Your task to perform on an android device: make emails show in primary in the gmail app Image 0: 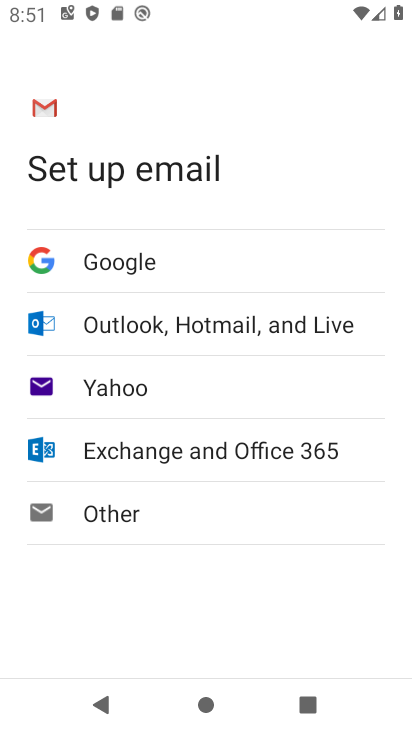
Step 0: press home button
Your task to perform on an android device: make emails show in primary in the gmail app Image 1: 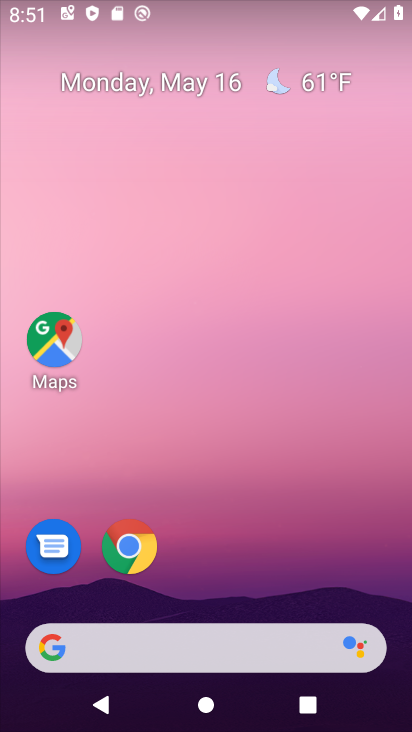
Step 1: drag from (328, 519) to (227, 184)
Your task to perform on an android device: make emails show in primary in the gmail app Image 2: 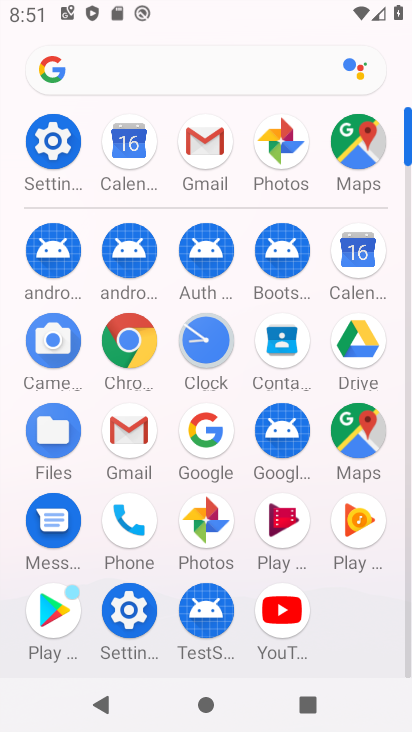
Step 2: click (130, 439)
Your task to perform on an android device: make emails show in primary in the gmail app Image 3: 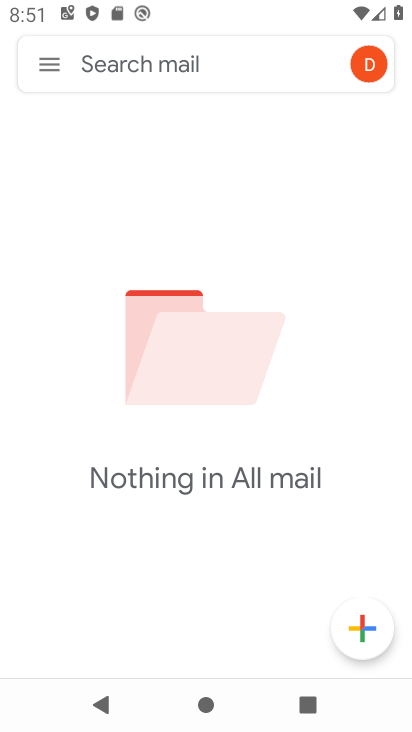
Step 3: click (52, 60)
Your task to perform on an android device: make emails show in primary in the gmail app Image 4: 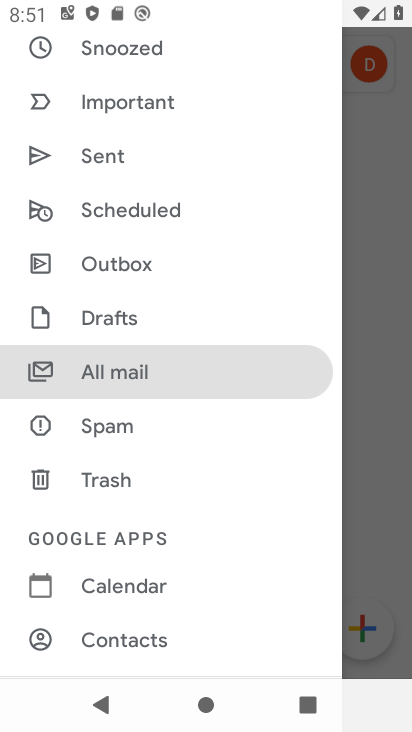
Step 4: drag from (273, 587) to (206, 197)
Your task to perform on an android device: make emails show in primary in the gmail app Image 5: 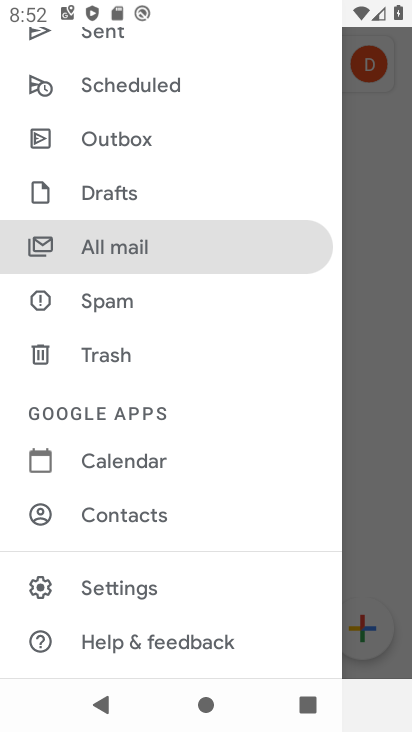
Step 5: click (161, 592)
Your task to perform on an android device: make emails show in primary in the gmail app Image 6: 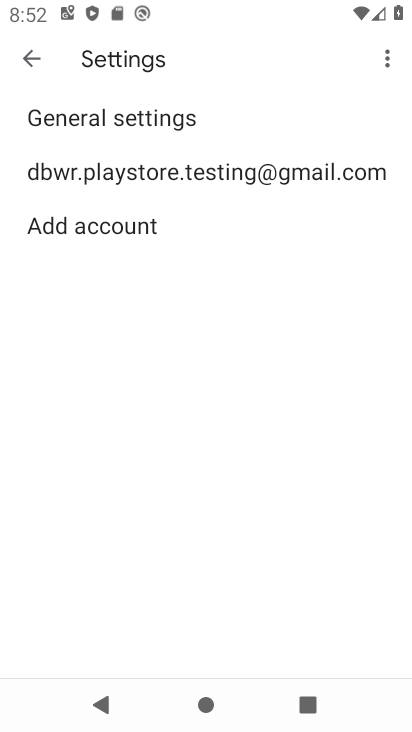
Step 6: click (99, 173)
Your task to perform on an android device: make emails show in primary in the gmail app Image 7: 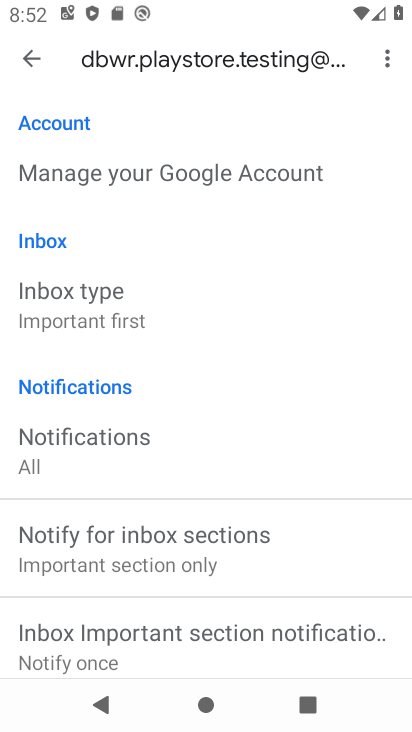
Step 7: click (91, 292)
Your task to perform on an android device: make emails show in primary in the gmail app Image 8: 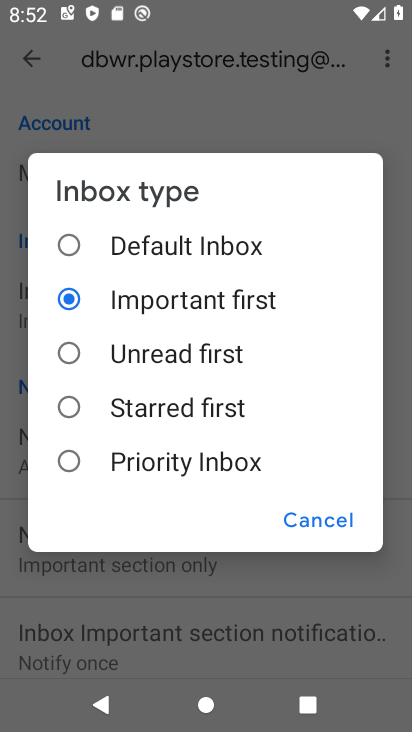
Step 8: click (70, 241)
Your task to perform on an android device: make emails show in primary in the gmail app Image 9: 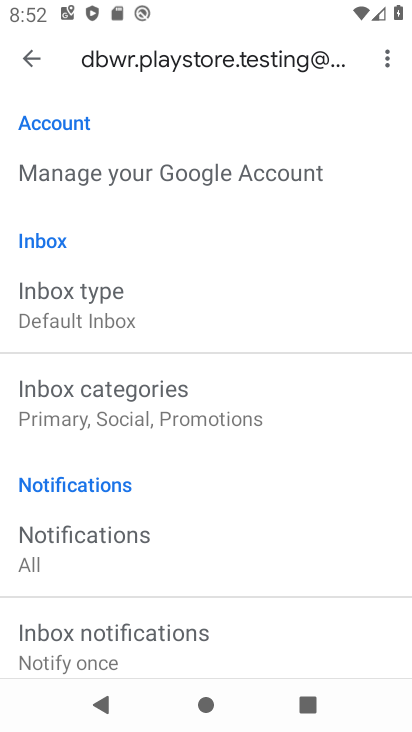
Step 9: click (143, 397)
Your task to perform on an android device: make emails show in primary in the gmail app Image 10: 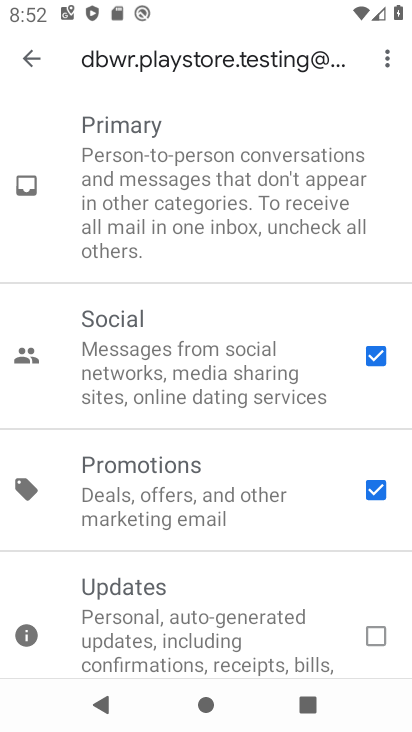
Step 10: click (381, 489)
Your task to perform on an android device: make emails show in primary in the gmail app Image 11: 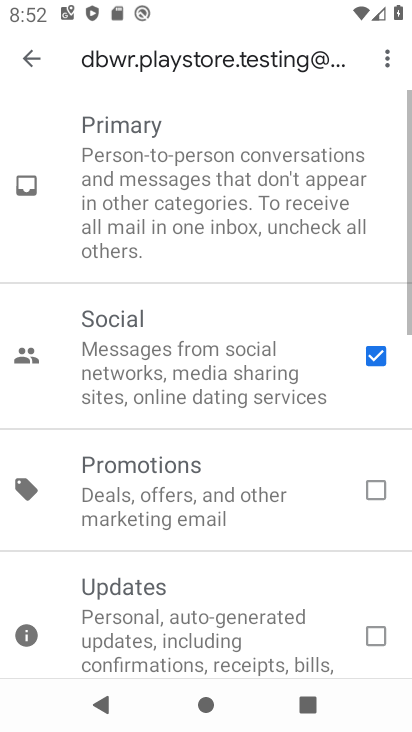
Step 11: click (373, 348)
Your task to perform on an android device: make emails show in primary in the gmail app Image 12: 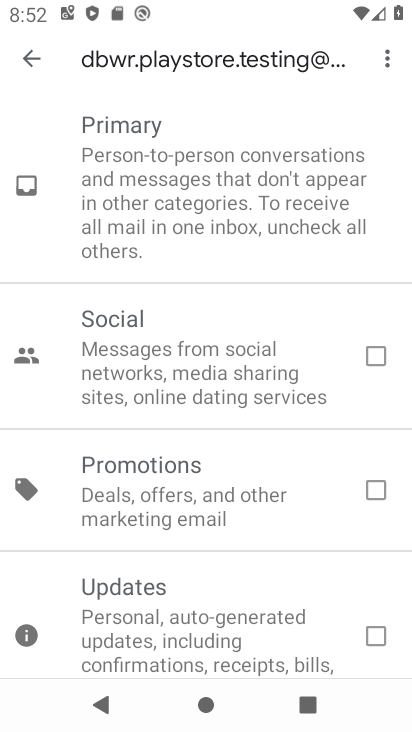
Step 12: click (29, 50)
Your task to perform on an android device: make emails show in primary in the gmail app Image 13: 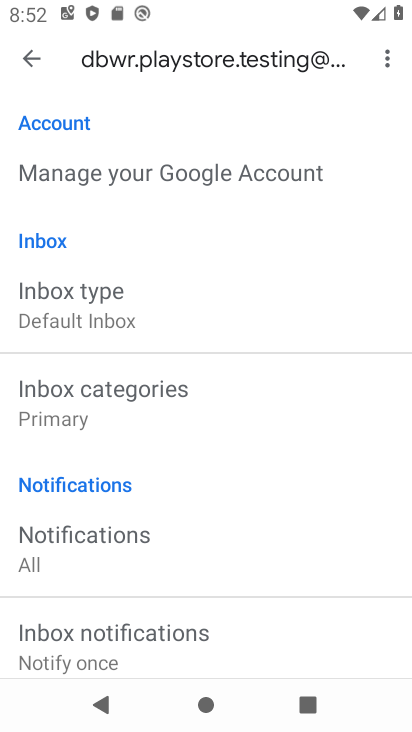
Step 13: task complete